Your task to perform on an android device: Open Reddit.com Image 0: 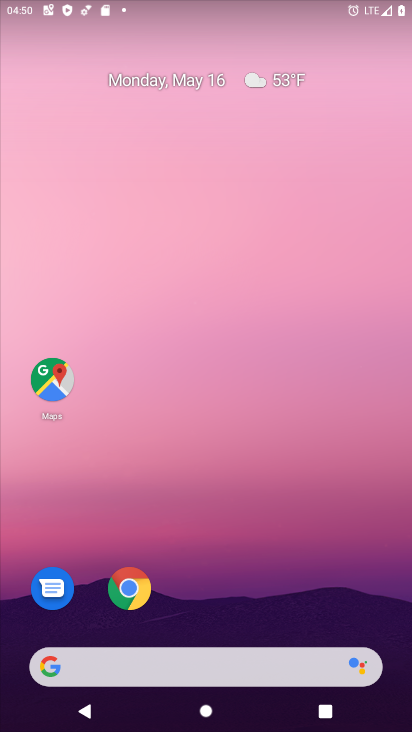
Step 0: drag from (257, 491) to (215, 81)
Your task to perform on an android device: Open Reddit.com Image 1: 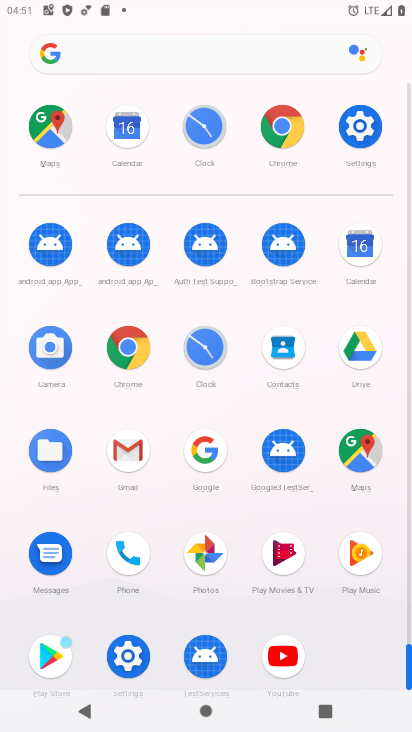
Step 1: click (119, 347)
Your task to perform on an android device: Open Reddit.com Image 2: 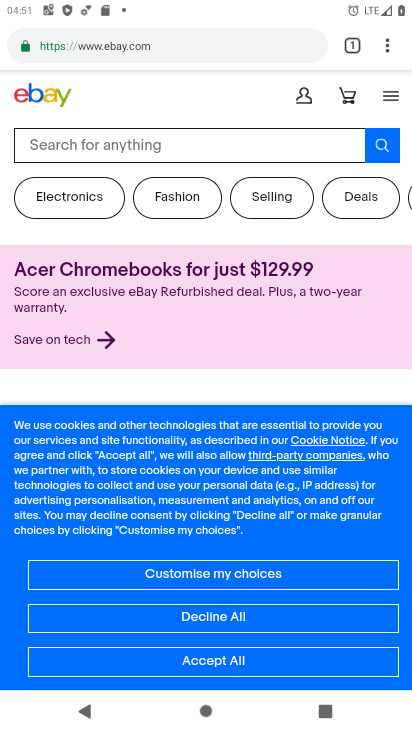
Step 2: click (135, 45)
Your task to perform on an android device: Open Reddit.com Image 3: 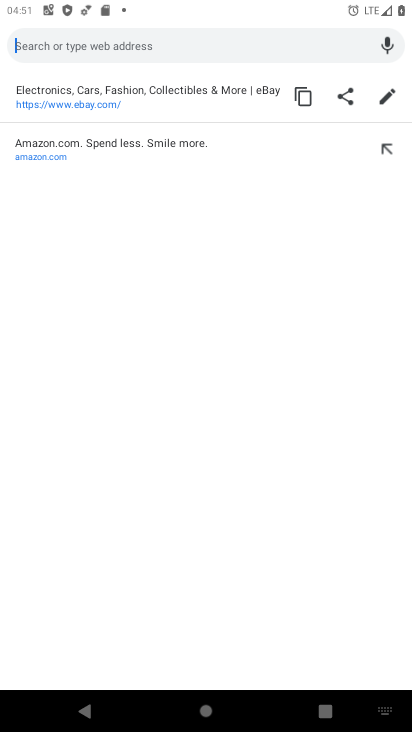
Step 3: type "Reddit.com"
Your task to perform on an android device: Open Reddit.com Image 4: 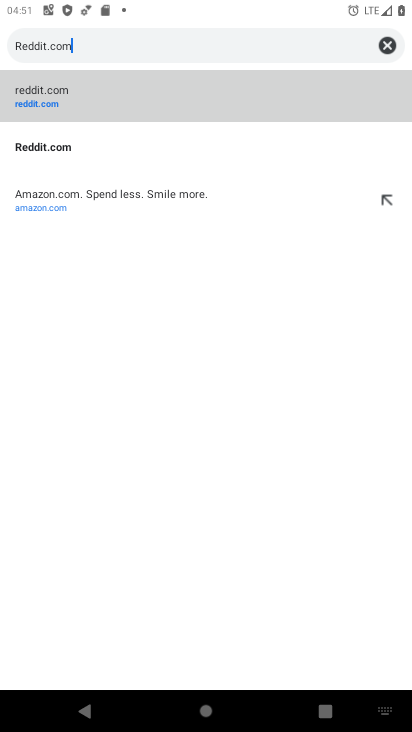
Step 4: type ""
Your task to perform on an android device: Open Reddit.com Image 5: 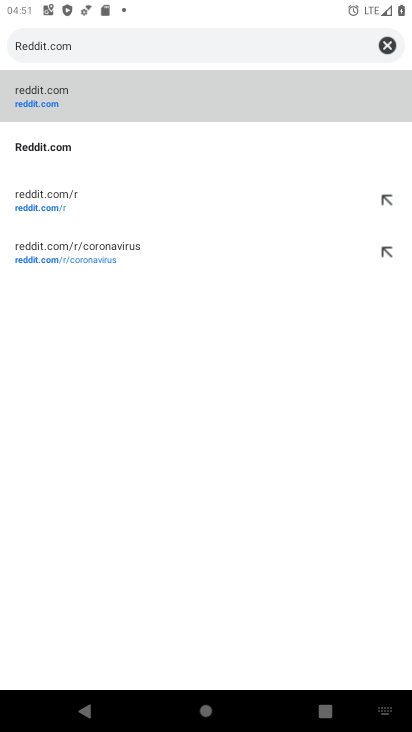
Step 5: click (119, 104)
Your task to perform on an android device: Open Reddit.com Image 6: 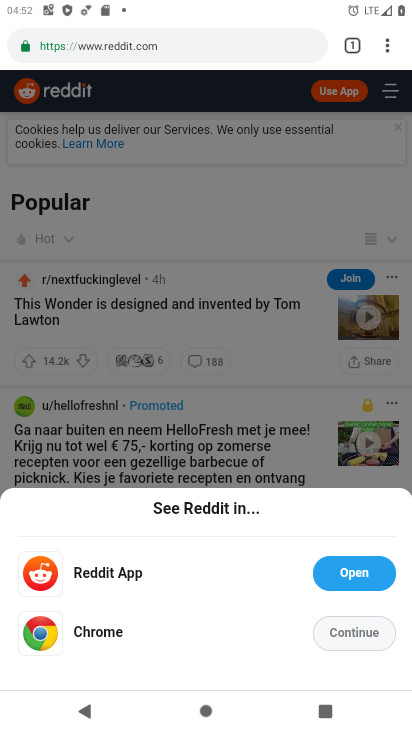
Step 6: task complete